Your task to perform on an android device: change the upload size in google photos Image 0: 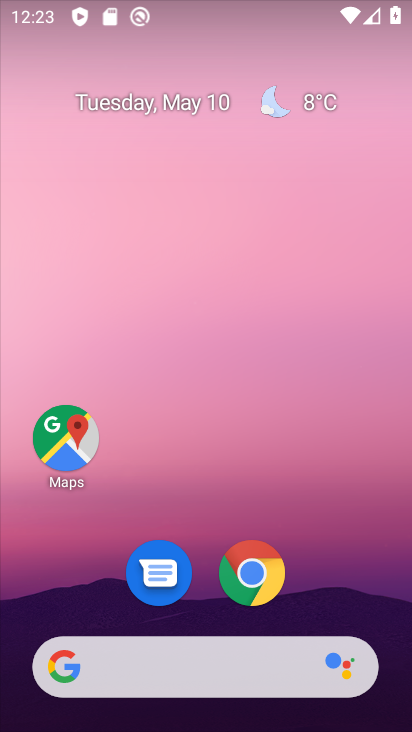
Step 0: drag from (203, 579) to (219, 99)
Your task to perform on an android device: change the upload size in google photos Image 1: 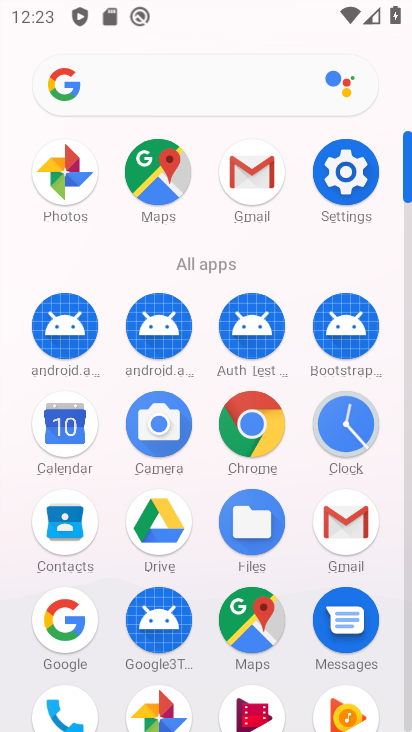
Step 1: drag from (193, 574) to (214, 194)
Your task to perform on an android device: change the upload size in google photos Image 2: 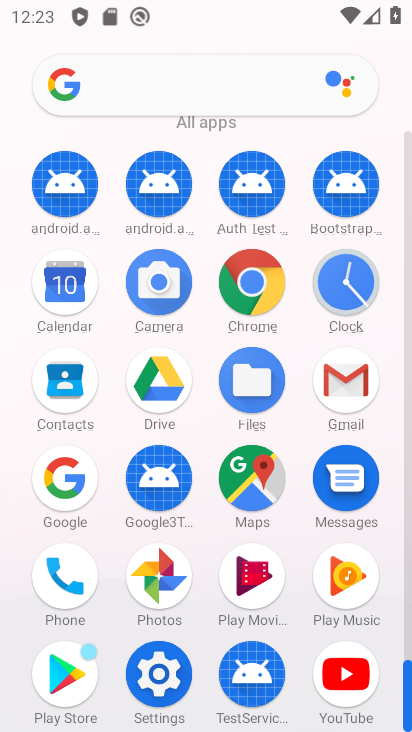
Step 2: click (144, 578)
Your task to perform on an android device: change the upload size in google photos Image 3: 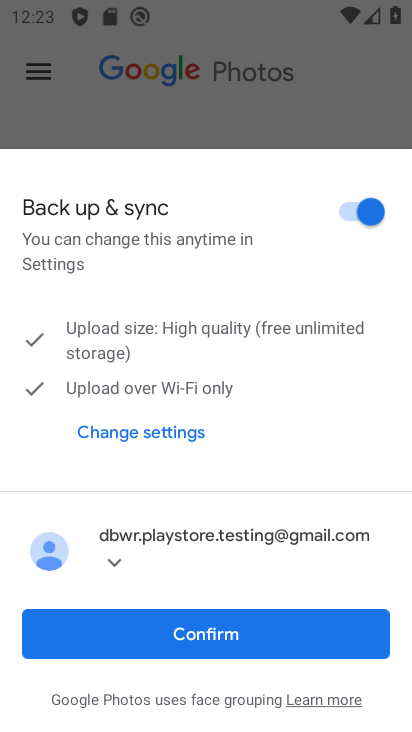
Step 3: click (222, 626)
Your task to perform on an android device: change the upload size in google photos Image 4: 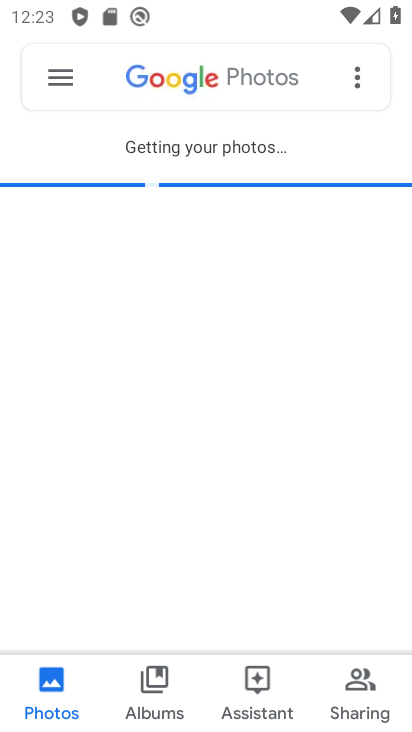
Step 4: click (45, 80)
Your task to perform on an android device: change the upload size in google photos Image 5: 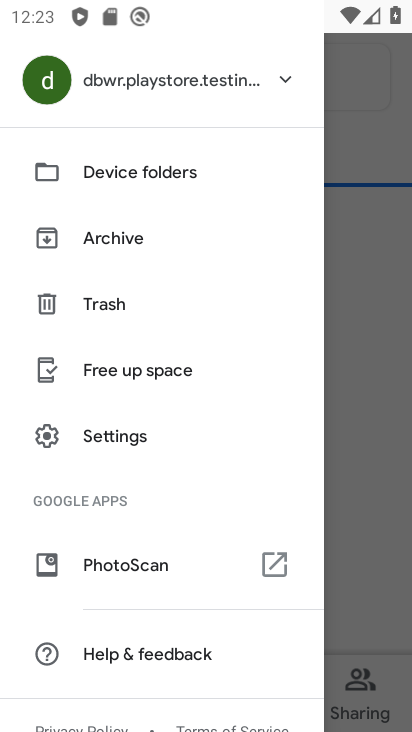
Step 5: click (107, 431)
Your task to perform on an android device: change the upload size in google photos Image 6: 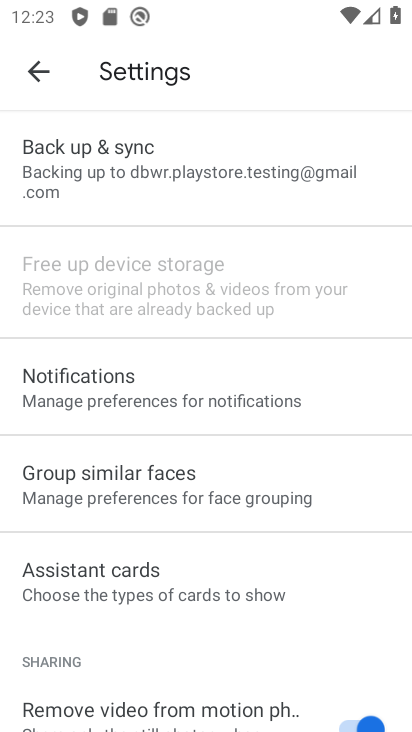
Step 6: click (153, 161)
Your task to perform on an android device: change the upload size in google photos Image 7: 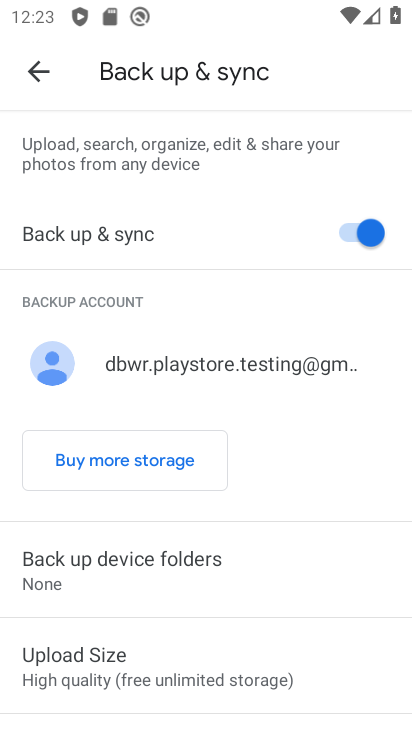
Step 7: drag from (131, 585) to (156, 285)
Your task to perform on an android device: change the upload size in google photos Image 8: 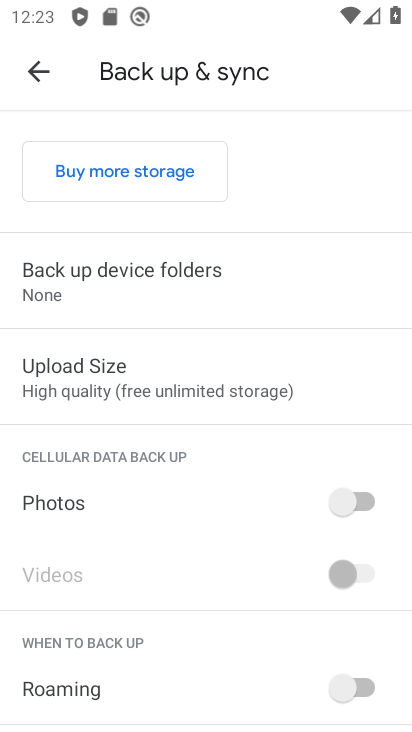
Step 8: click (131, 364)
Your task to perform on an android device: change the upload size in google photos Image 9: 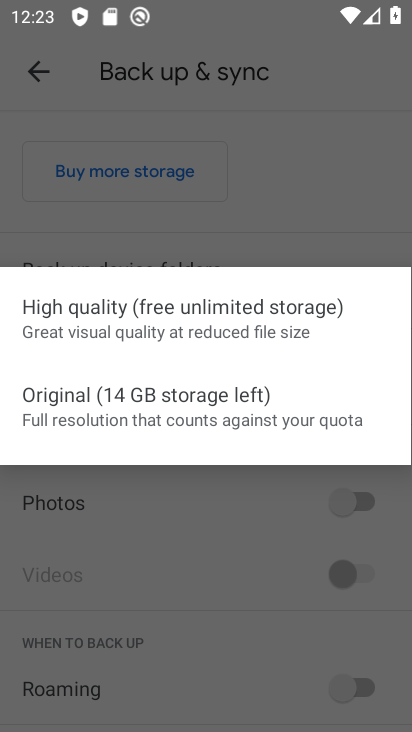
Step 9: click (131, 409)
Your task to perform on an android device: change the upload size in google photos Image 10: 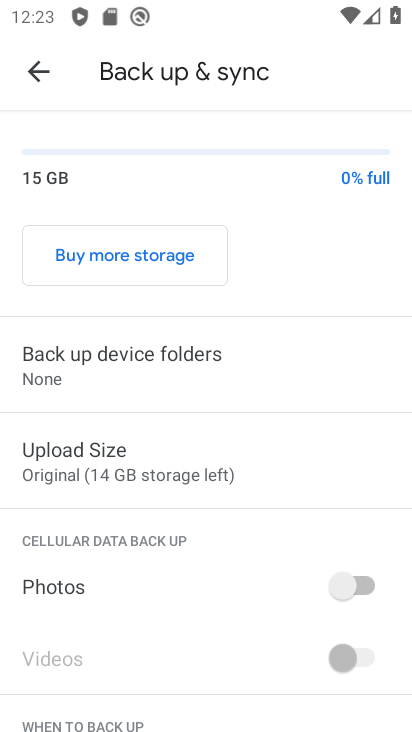
Step 10: task complete